Your task to perform on an android device: Is it going to rain tomorrow? Image 0: 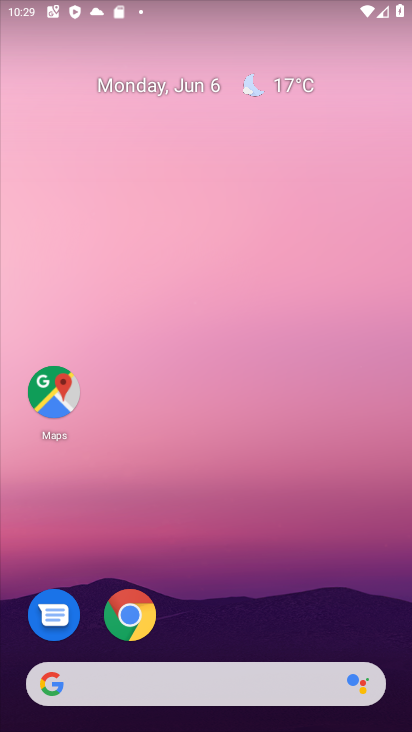
Step 0: click (249, 85)
Your task to perform on an android device: Is it going to rain tomorrow? Image 1: 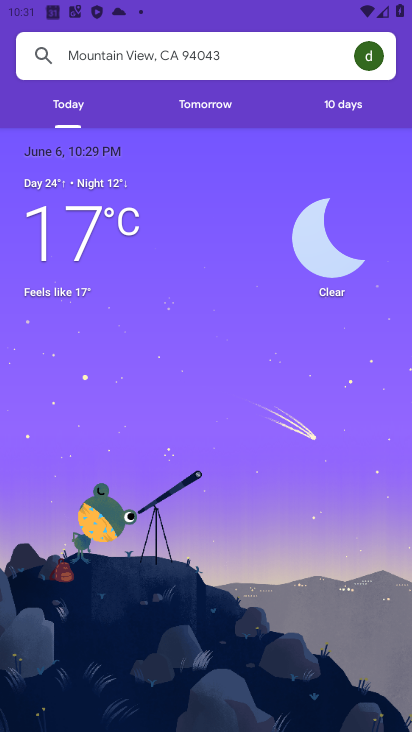
Step 1: click (200, 95)
Your task to perform on an android device: Is it going to rain tomorrow? Image 2: 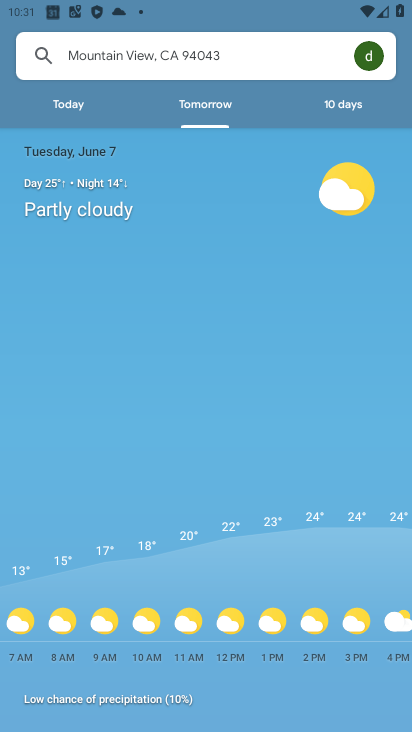
Step 2: task complete